Your task to perform on an android device: Open Google Maps Image 0: 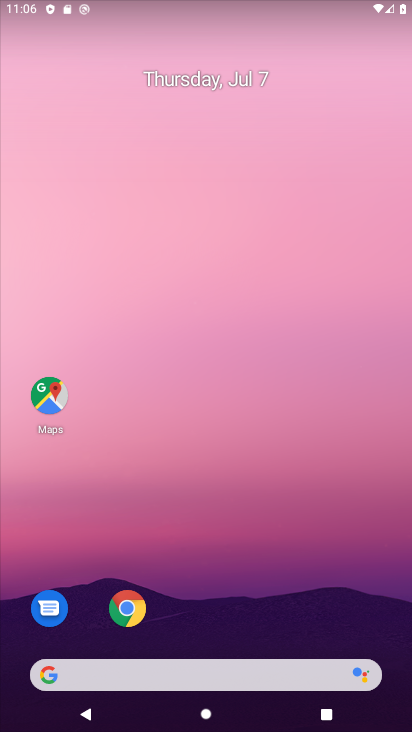
Step 0: click (37, 386)
Your task to perform on an android device: Open Google Maps Image 1: 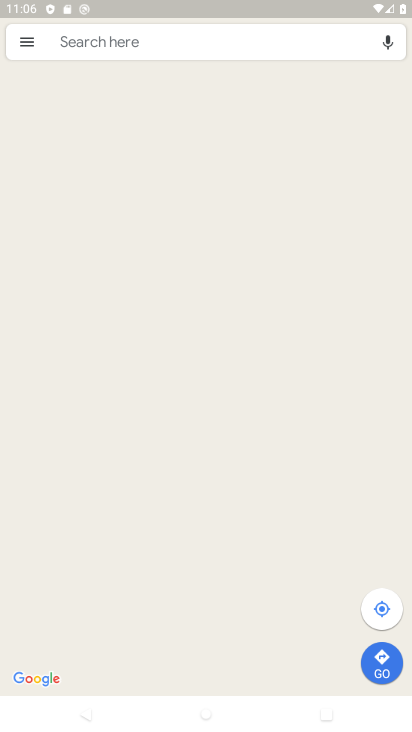
Step 1: task complete